Your task to perform on an android device: Open the calendar app, open the side menu, and click the "Day" option Image 0: 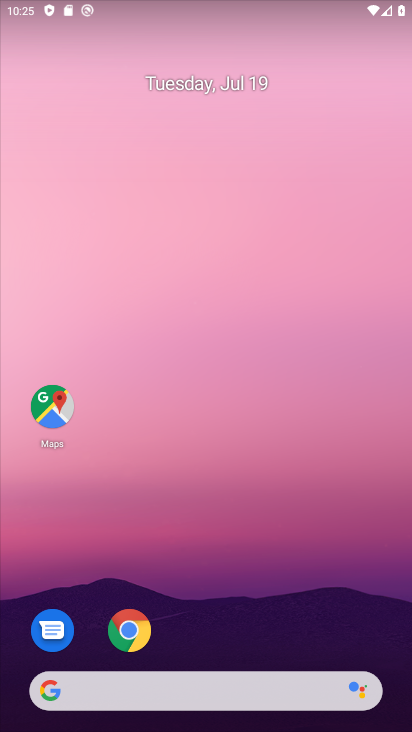
Step 0: drag from (32, 595) to (240, 60)
Your task to perform on an android device: Open the calendar app, open the side menu, and click the "Day" option Image 1: 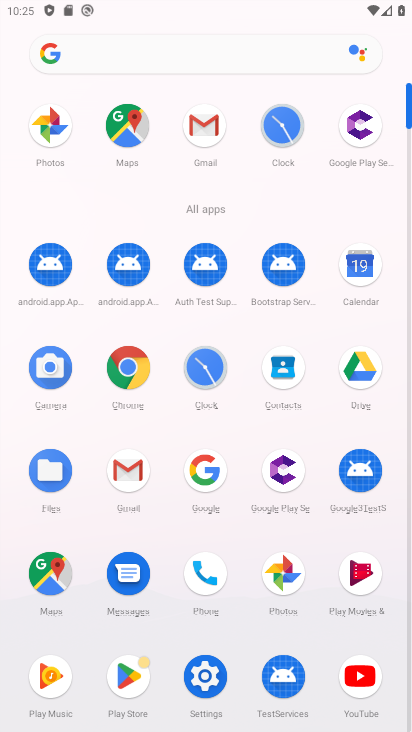
Step 1: click (336, 290)
Your task to perform on an android device: Open the calendar app, open the side menu, and click the "Day" option Image 2: 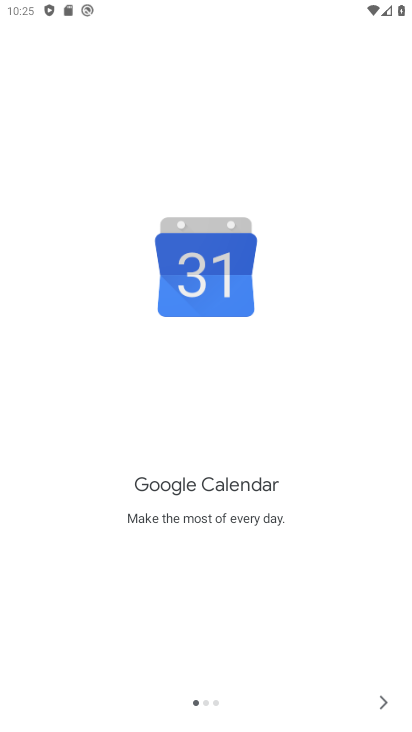
Step 2: click (384, 699)
Your task to perform on an android device: Open the calendar app, open the side menu, and click the "Day" option Image 3: 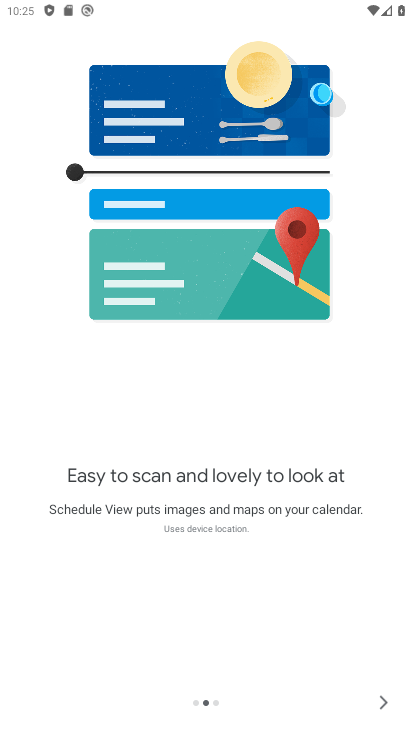
Step 3: click (385, 696)
Your task to perform on an android device: Open the calendar app, open the side menu, and click the "Day" option Image 4: 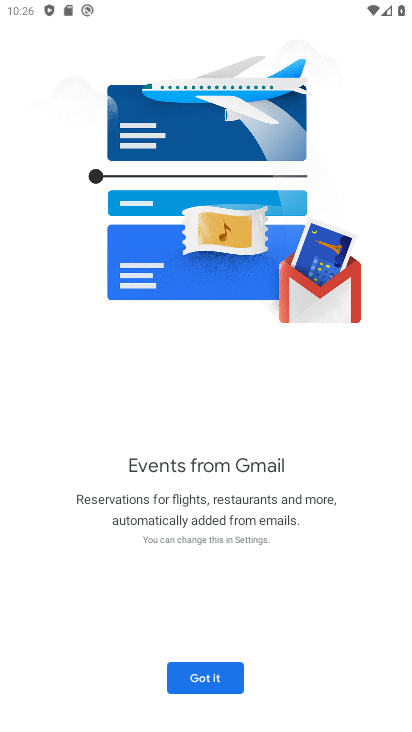
Step 4: click (208, 662)
Your task to perform on an android device: Open the calendar app, open the side menu, and click the "Day" option Image 5: 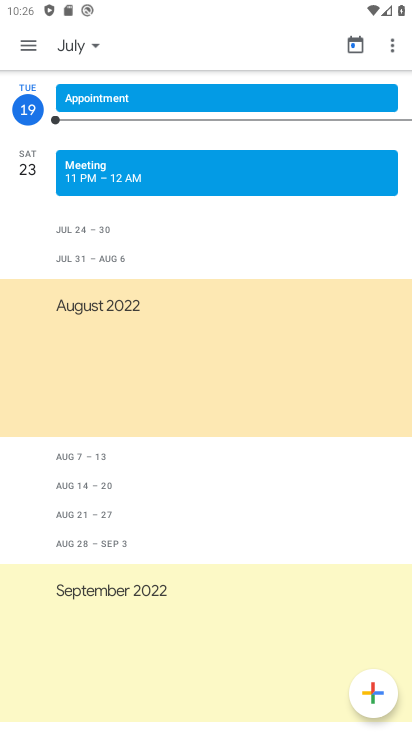
Step 5: click (22, 47)
Your task to perform on an android device: Open the calendar app, open the side menu, and click the "Day" option Image 6: 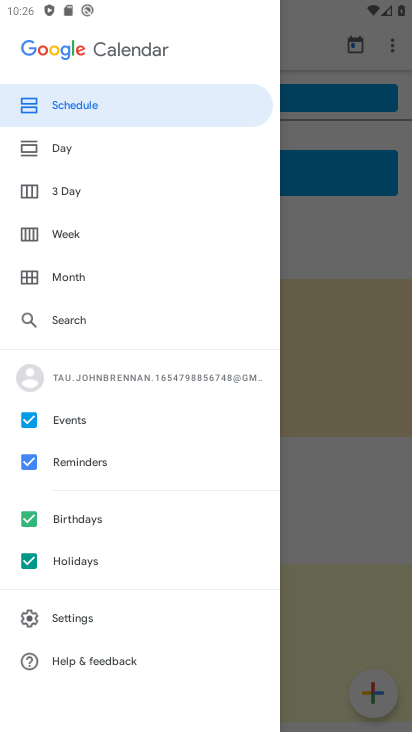
Step 6: click (88, 145)
Your task to perform on an android device: Open the calendar app, open the side menu, and click the "Day" option Image 7: 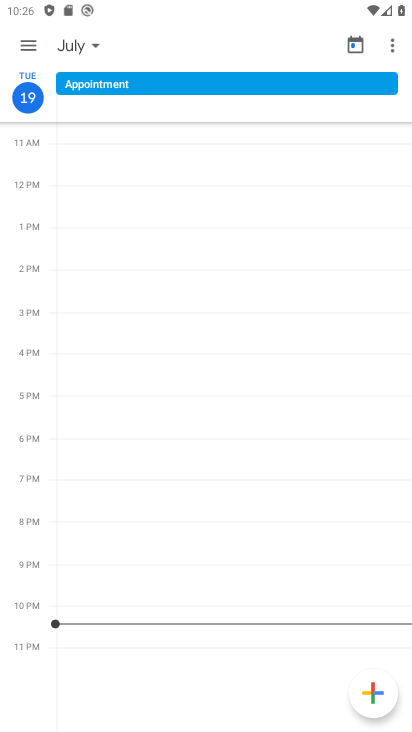
Step 7: task complete